Your task to perform on an android device: What's the weather today? Image 0: 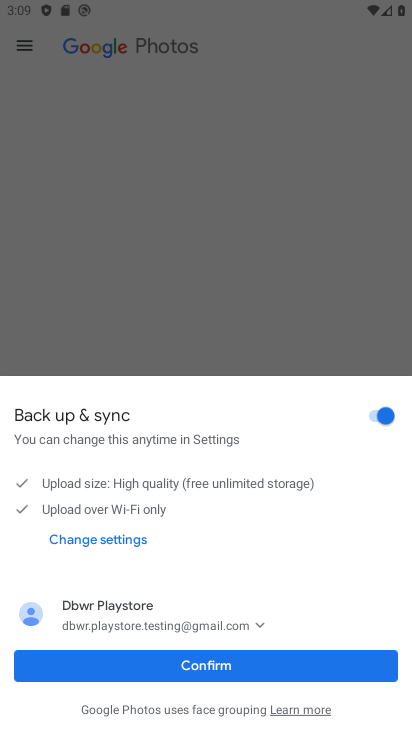
Step 0: press home button
Your task to perform on an android device: What's the weather today? Image 1: 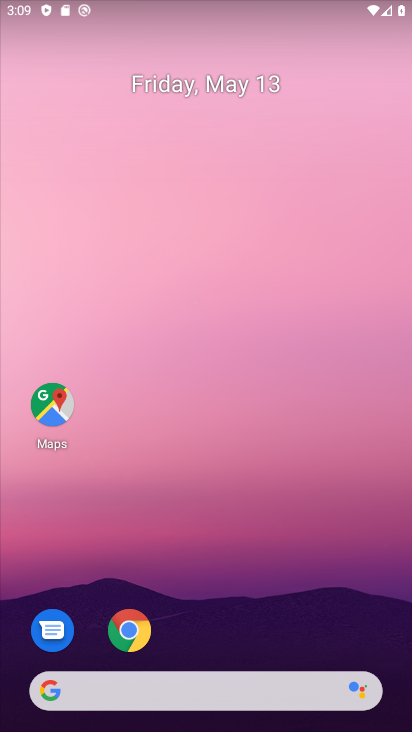
Step 1: click (229, 681)
Your task to perform on an android device: What's the weather today? Image 2: 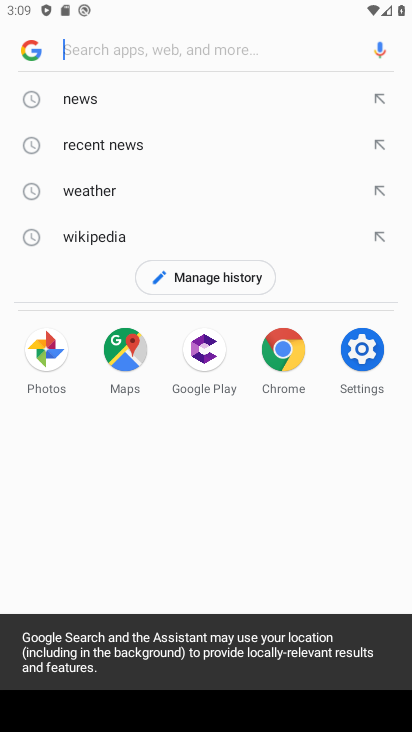
Step 2: click (92, 187)
Your task to perform on an android device: What's the weather today? Image 3: 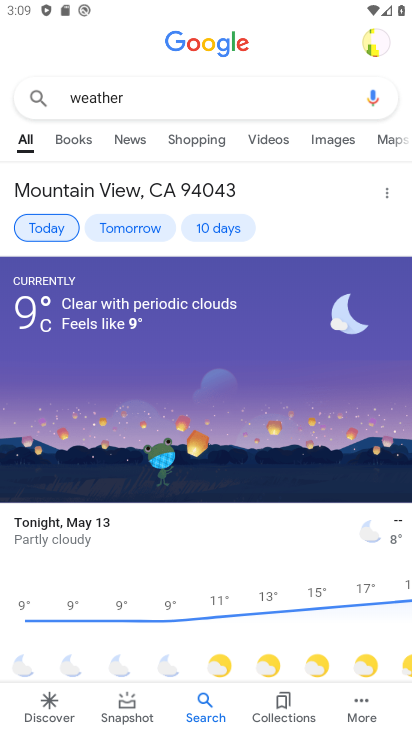
Step 3: click (38, 223)
Your task to perform on an android device: What's the weather today? Image 4: 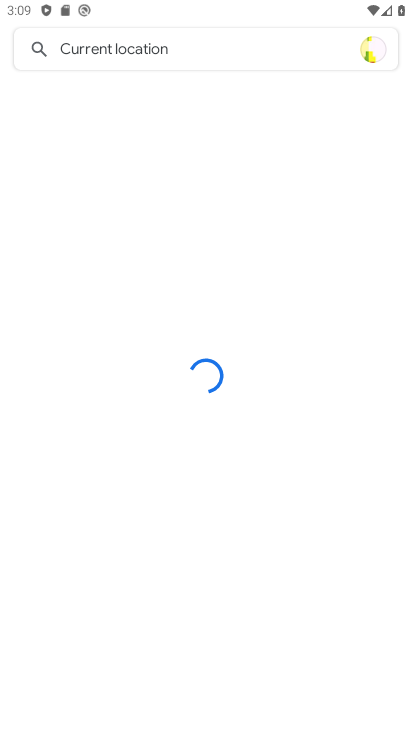
Step 4: task complete